Your task to perform on an android device: turn off airplane mode Image 0: 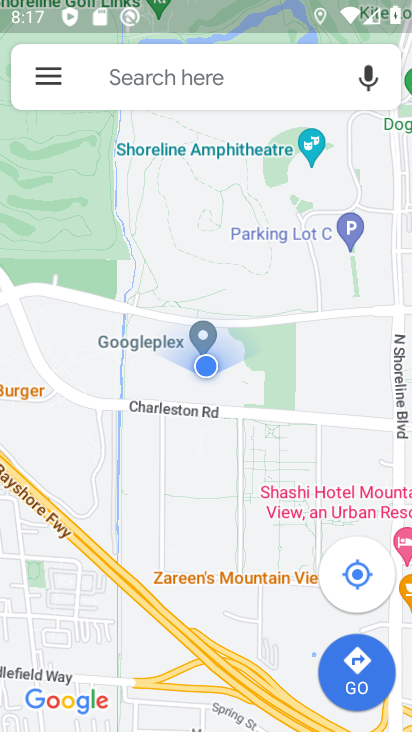
Step 0: press back button
Your task to perform on an android device: turn off airplane mode Image 1: 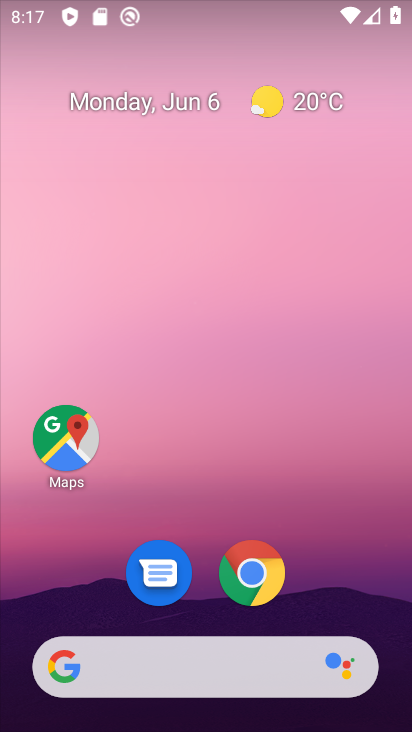
Step 1: task complete